Your task to perform on an android device: add a label to a message in the gmail app Image 0: 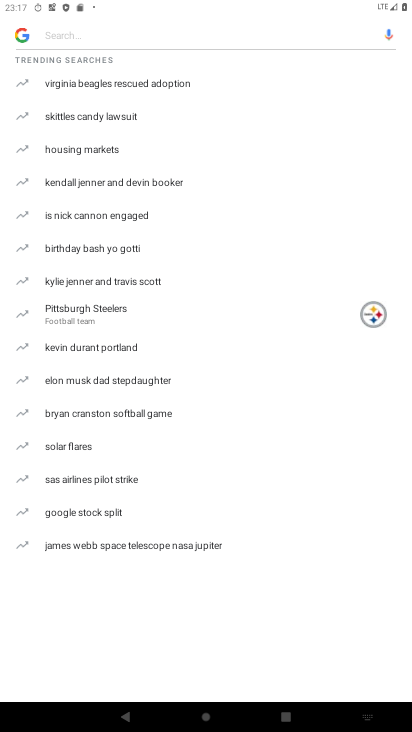
Step 0: press home button
Your task to perform on an android device: add a label to a message in the gmail app Image 1: 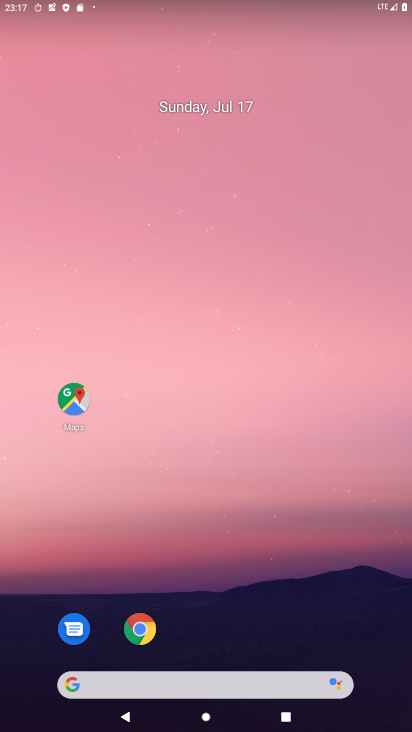
Step 1: drag from (234, 718) to (237, 68)
Your task to perform on an android device: add a label to a message in the gmail app Image 2: 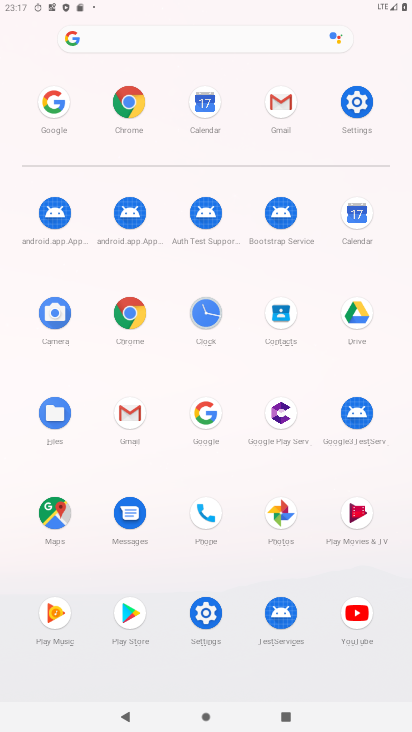
Step 2: click (133, 411)
Your task to perform on an android device: add a label to a message in the gmail app Image 3: 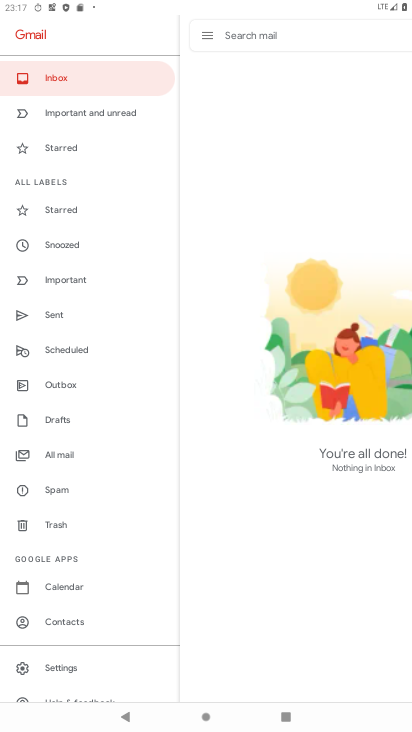
Step 3: task complete